Your task to perform on an android device: remove spam from my inbox in the gmail app Image 0: 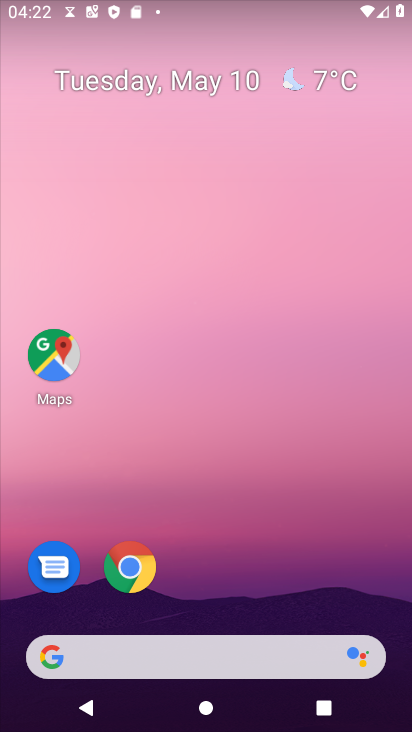
Step 0: drag from (209, 532) to (238, 46)
Your task to perform on an android device: remove spam from my inbox in the gmail app Image 1: 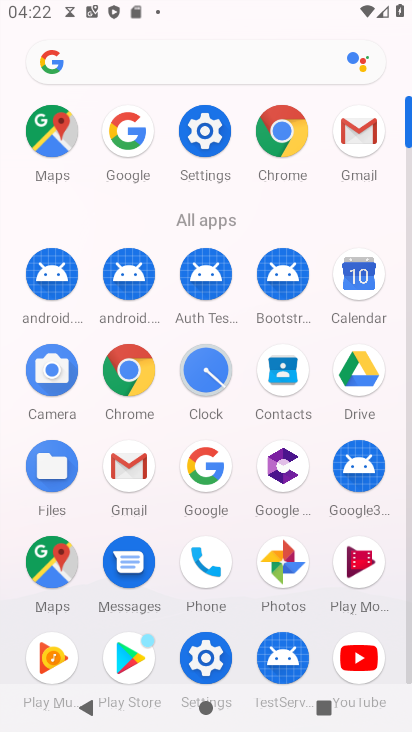
Step 1: click (356, 135)
Your task to perform on an android device: remove spam from my inbox in the gmail app Image 2: 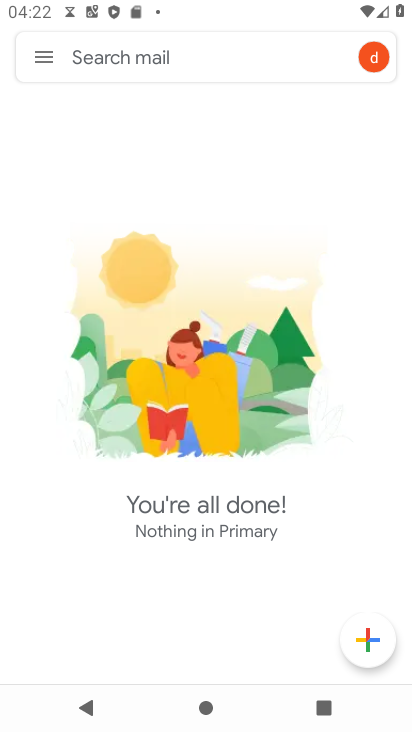
Step 2: click (44, 52)
Your task to perform on an android device: remove spam from my inbox in the gmail app Image 3: 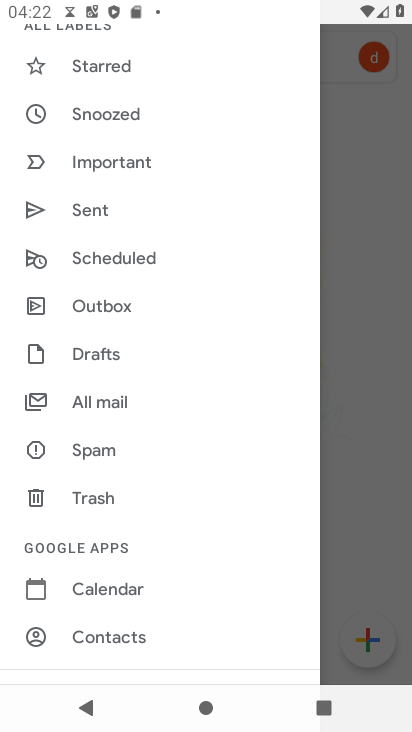
Step 3: drag from (106, 507) to (127, 356)
Your task to perform on an android device: remove spam from my inbox in the gmail app Image 4: 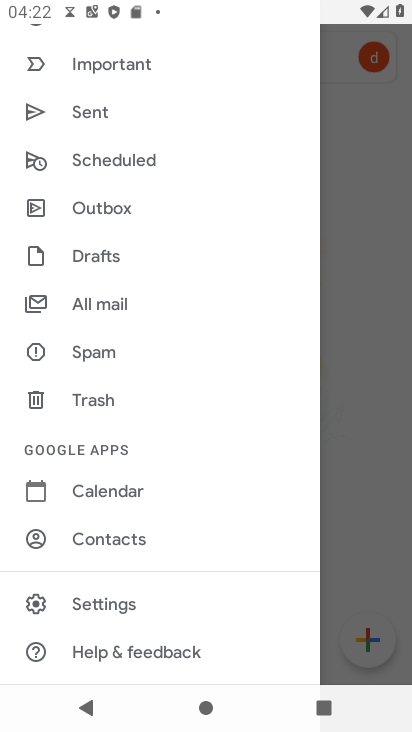
Step 4: click (100, 349)
Your task to perform on an android device: remove spam from my inbox in the gmail app Image 5: 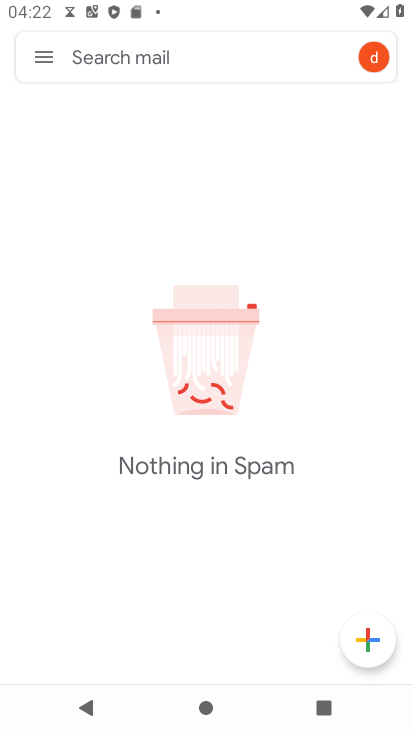
Step 5: task complete